Your task to perform on an android device: What's on my calendar tomorrow? Image 0: 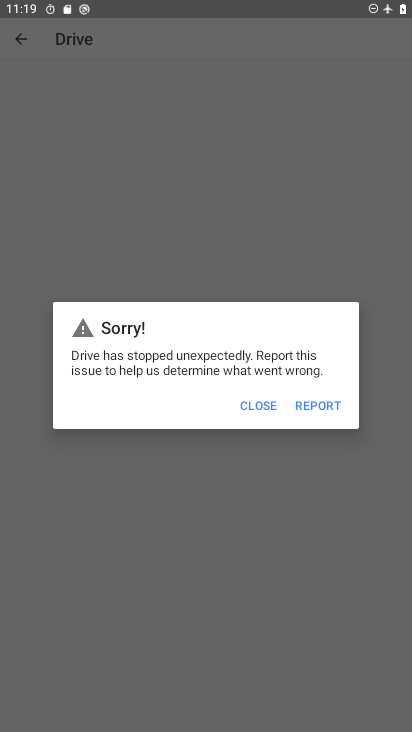
Step 0: press home button
Your task to perform on an android device: What's on my calendar tomorrow? Image 1: 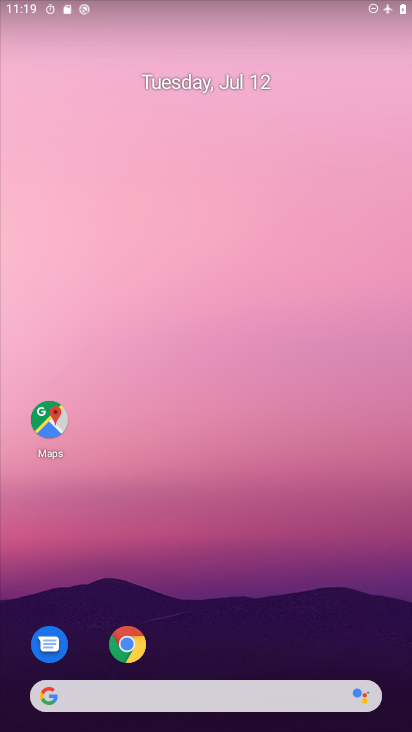
Step 1: drag from (277, 646) to (194, 154)
Your task to perform on an android device: What's on my calendar tomorrow? Image 2: 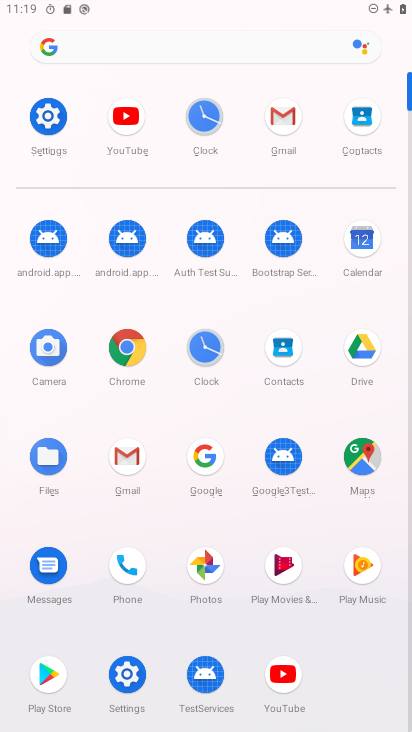
Step 2: click (358, 233)
Your task to perform on an android device: What's on my calendar tomorrow? Image 3: 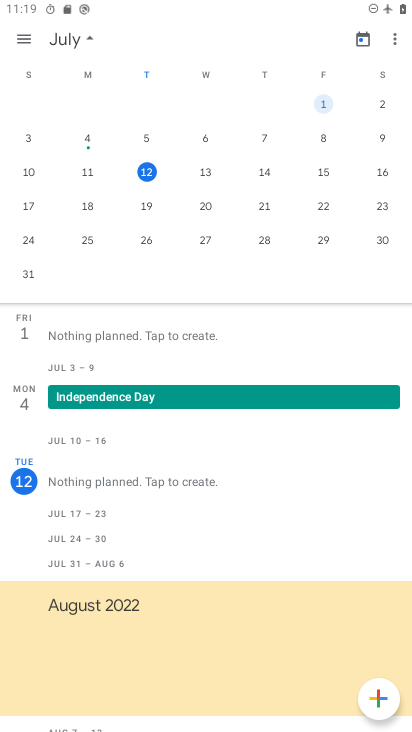
Step 3: click (206, 172)
Your task to perform on an android device: What's on my calendar tomorrow? Image 4: 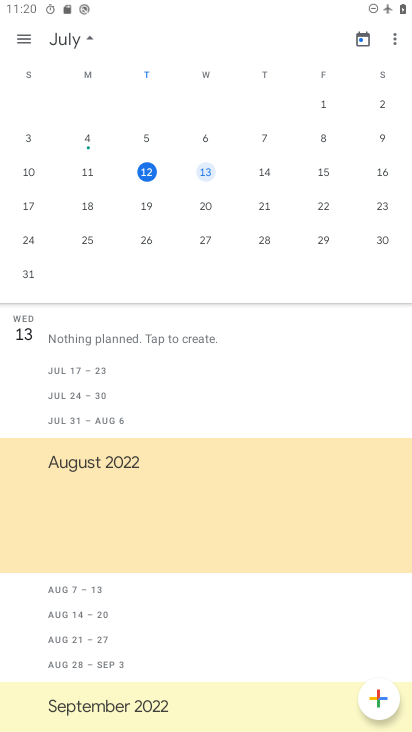
Step 4: task complete